Your task to perform on an android device: change notifications settings Image 0: 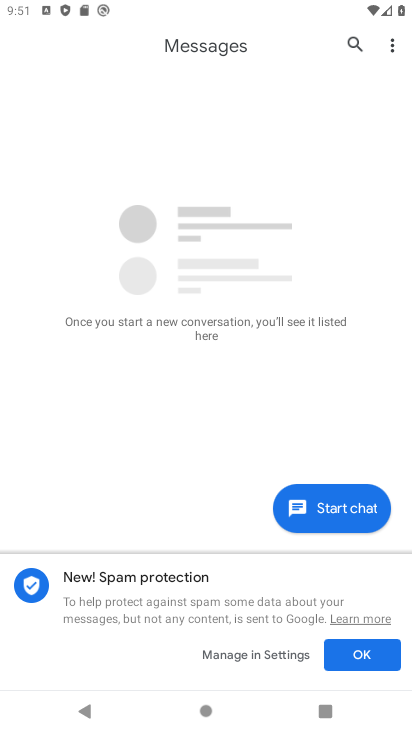
Step 0: press home button
Your task to perform on an android device: change notifications settings Image 1: 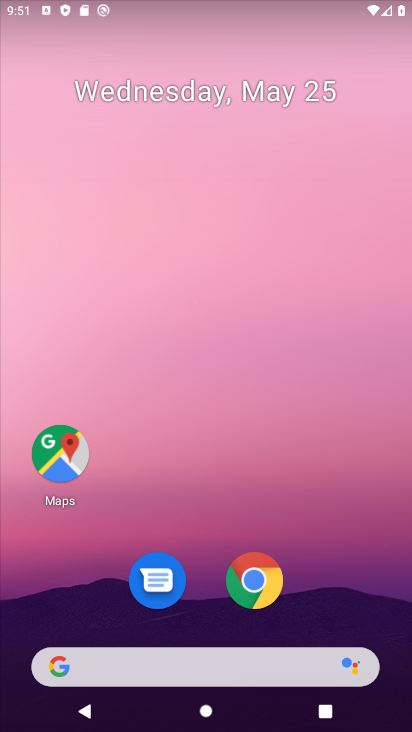
Step 1: drag from (27, 484) to (148, 159)
Your task to perform on an android device: change notifications settings Image 2: 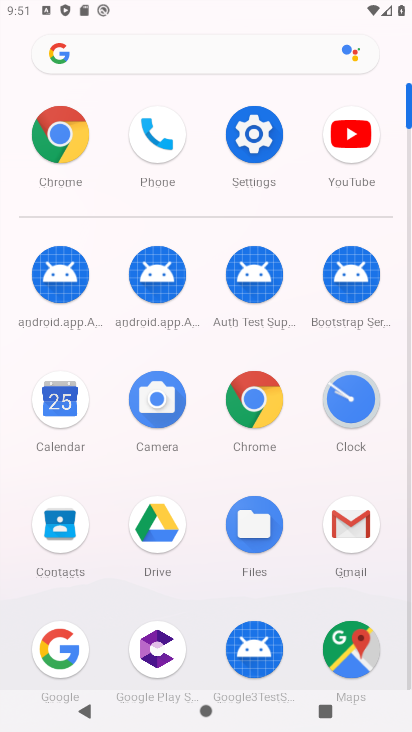
Step 2: click (233, 138)
Your task to perform on an android device: change notifications settings Image 3: 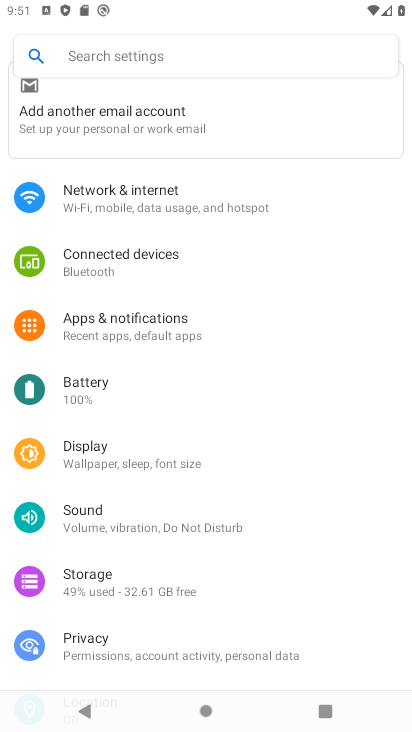
Step 3: click (178, 320)
Your task to perform on an android device: change notifications settings Image 4: 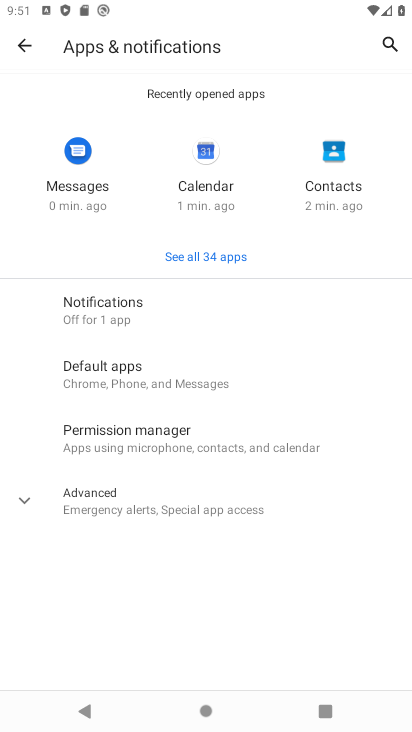
Step 4: click (179, 317)
Your task to perform on an android device: change notifications settings Image 5: 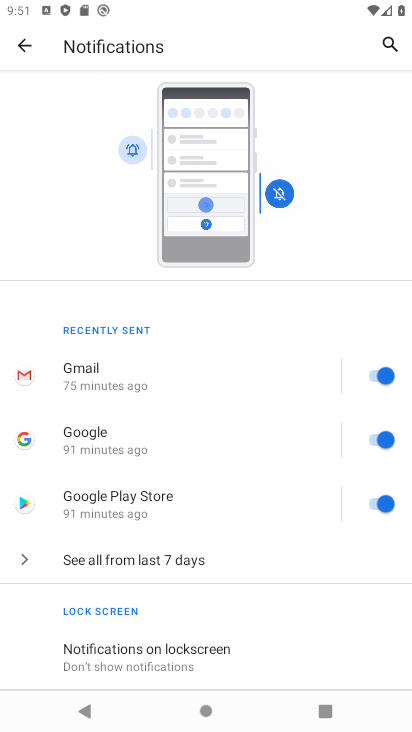
Step 5: task complete